Your task to perform on an android device: toggle data saver in the chrome app Image 0: 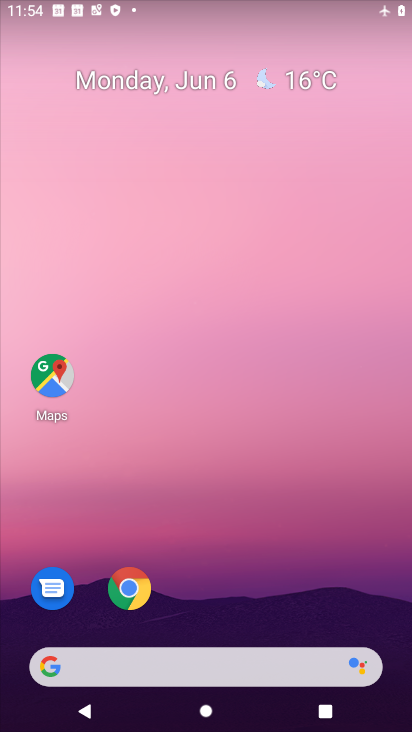
Step 0: click (128, 598)
Your task to perform on an android device: toggle data saver in the chrome app Image 1: 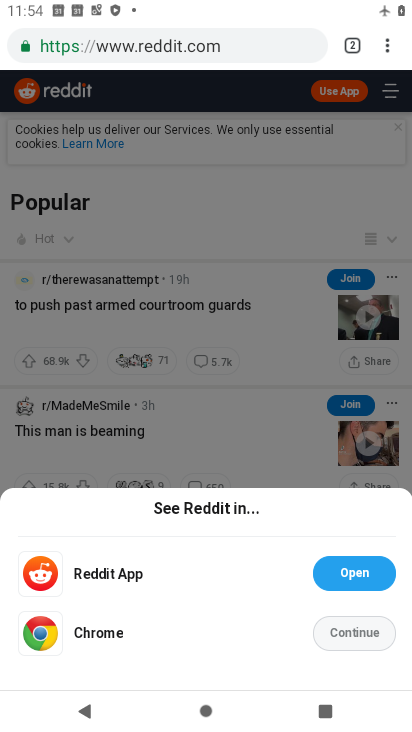
Step 1: click (390, 44)
Your task to perform on an android device: toggle data saver in the chrome app Image 2: 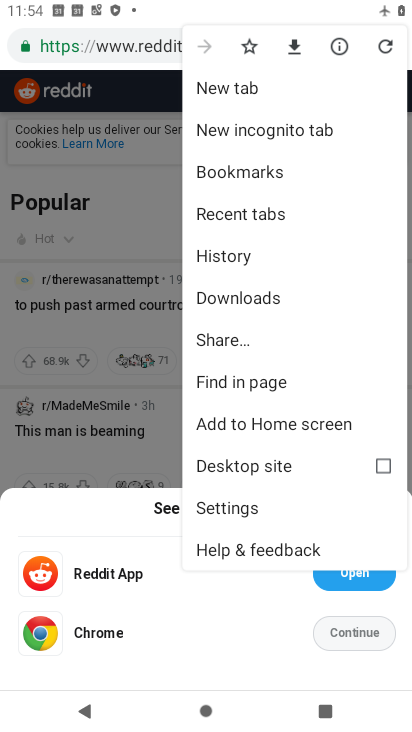
Step 2: click (221, 495)
Your task to perform on an android device: toggle data saver in the chrome app Image 3: 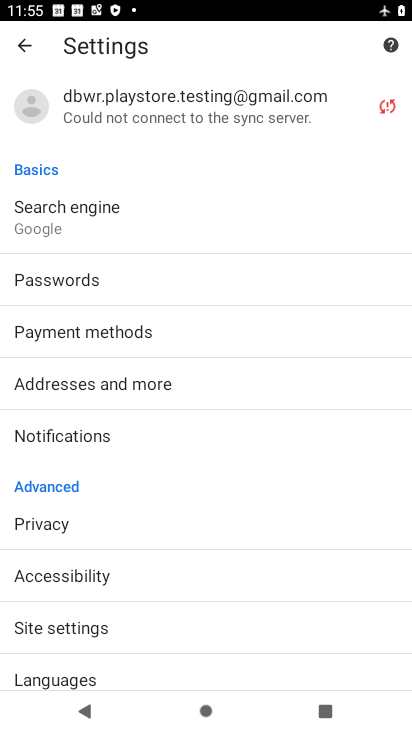
Step 3: drag from (197, 593) to (214, 189)
Your task to perform on an android device: toggle data saver in the chrome app Image 4: 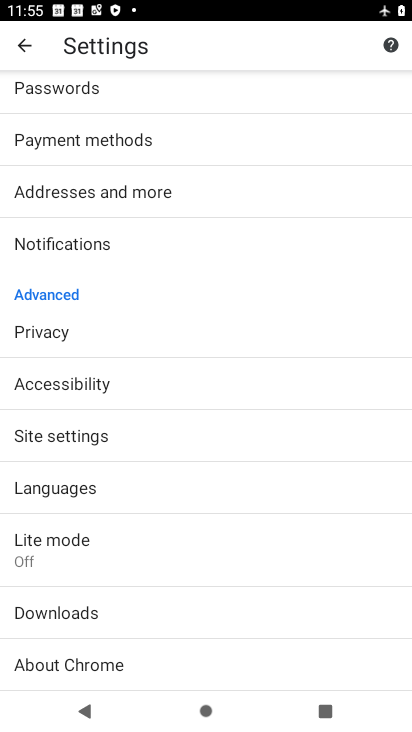
Step 4: click (97, 555)
Your task to perform on an android device: toggle data saver in the chrome app Image 5: 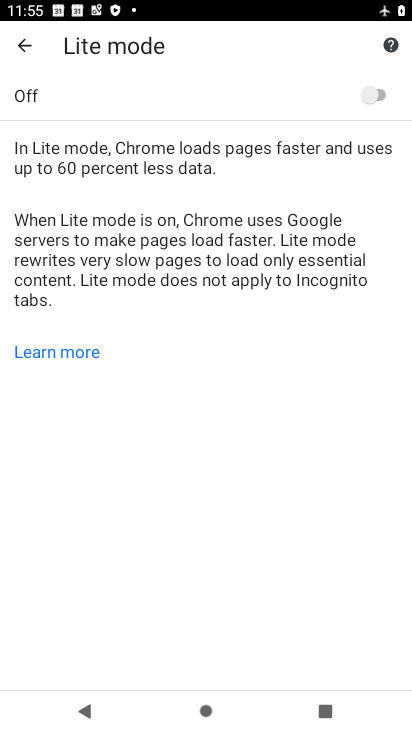
Step 5: click (382, 89)
Your task to perform on an android device: toggle data saver in the chrome app Image 6: 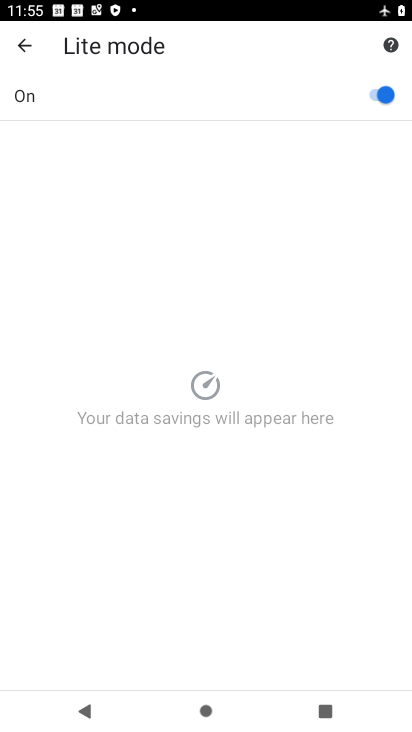
Step 6: task complete